Your task to perform on an android device: Open the stopwatch Image 0: 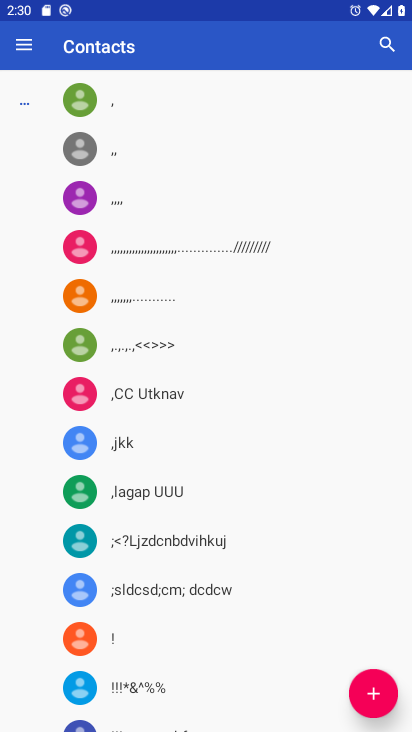
Step 0: press home button
Your task to perform on an android device: Open the stopwatch Image 1: 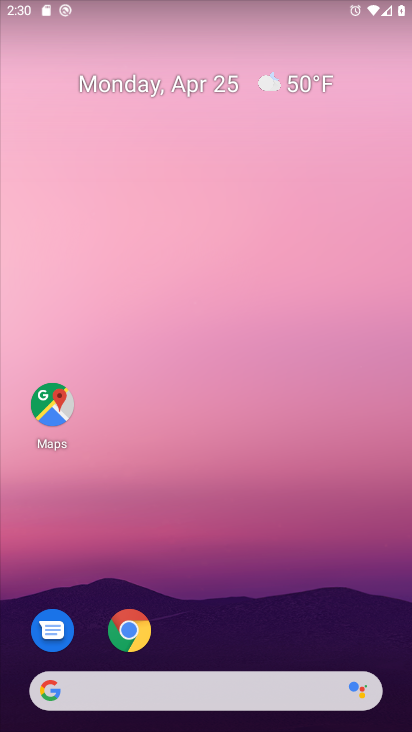
Step 1: drag from (204, 294) to (161, 71)
Your task to perform on an android device: Open the stopwatch Image 2: 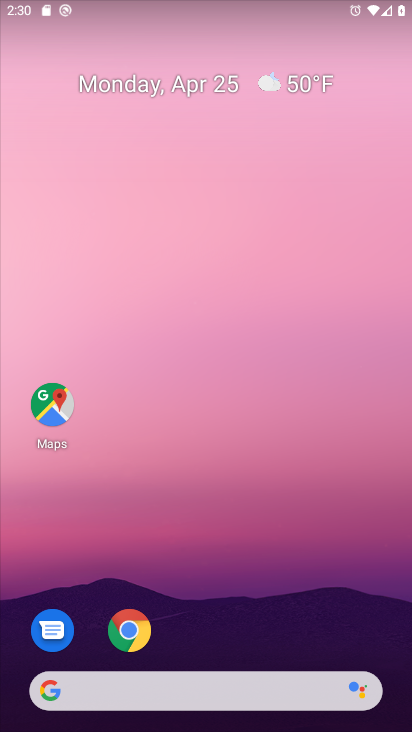
Step 2: drag from (204, 619) to (241, 49)
Your task to perform on an android device: Open the stopwatch Image 3: 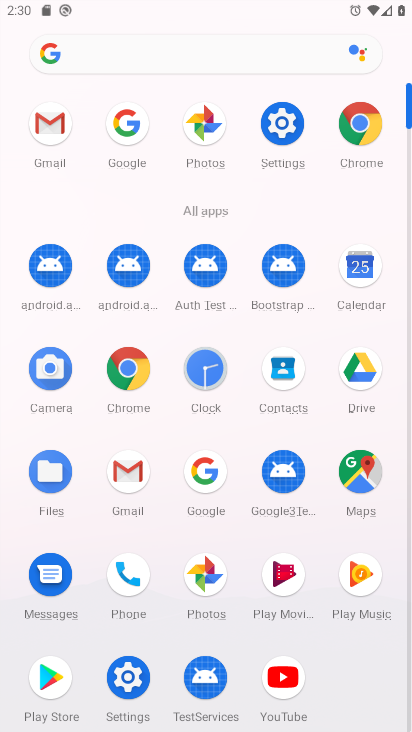
Step 3: click (197, 373)
Your task to perform on an android device: Open the stopwatch Image 4: 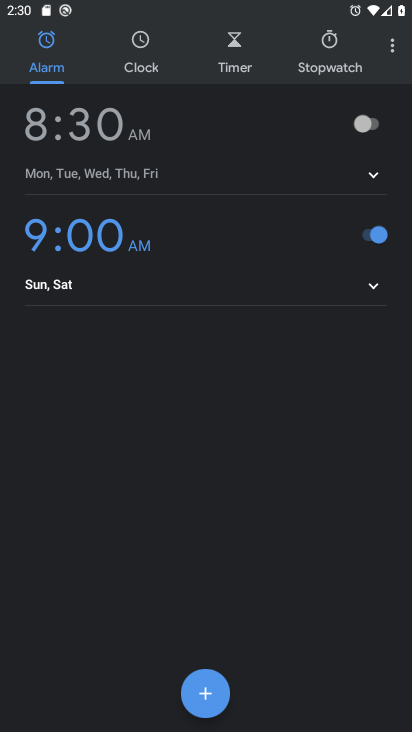
Step 4: click (350, 37)
Your task to perform on an android device: Open the stopwatch Image 5: 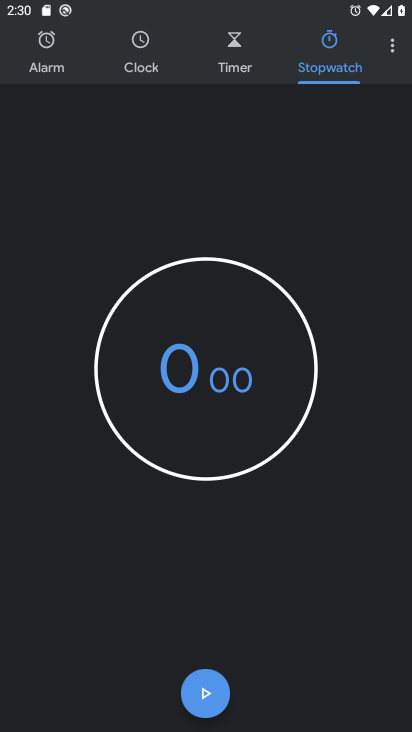
Step 5: task complete